Your task to perform on an android device: turn on the 12-hour format for clock Image 0: 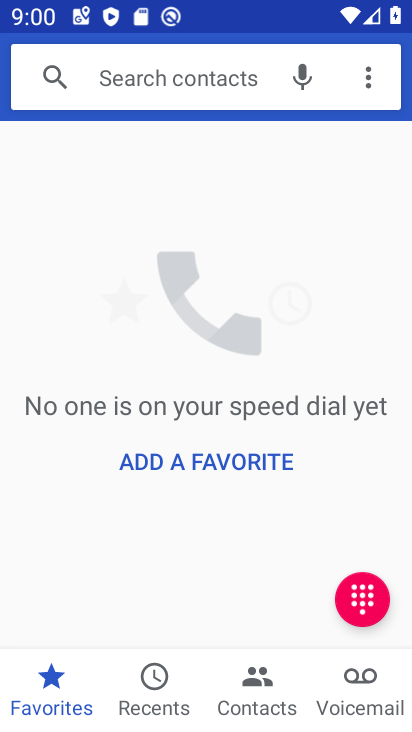
Step 0: press home button
Your task to perform on an android device: turn on the 12-hour format for clock Image 1: 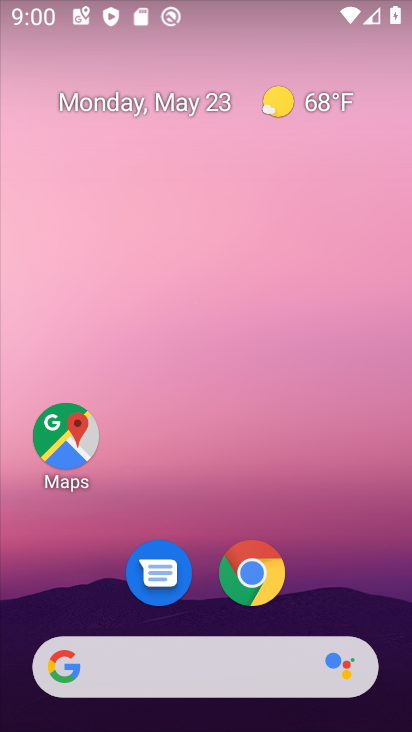
Step 1: drag from (306, 668) to (369, 152)
Your task to perform on an android device: turn on the 12-hour format for clock Image 2: 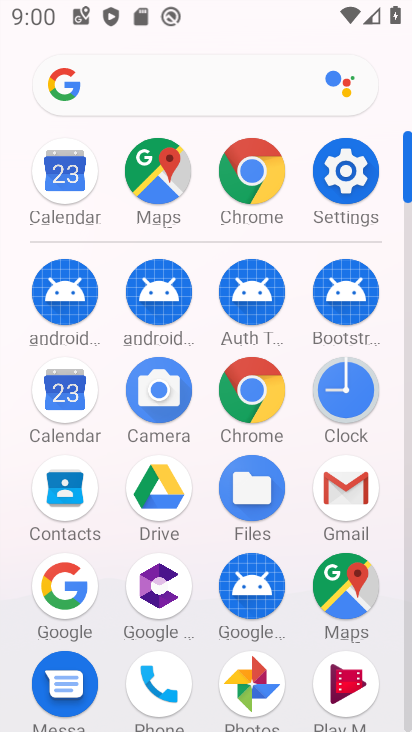
Step 2: click (346, 408)
Your task to perform on an android device: turn on the 12-hour format for clock Image 3: 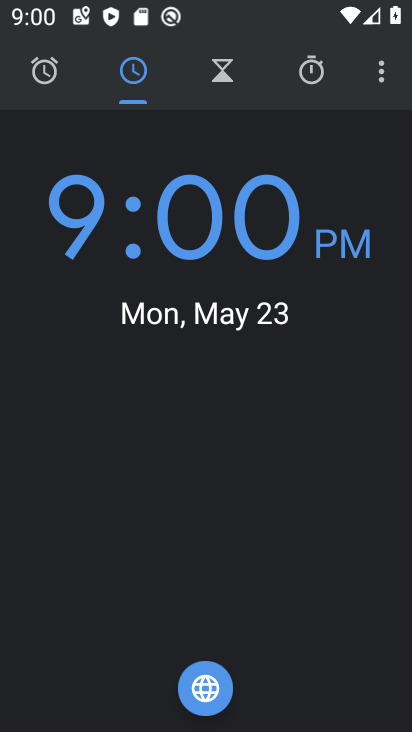
Step 3: click (386, 84)
Your task to perform on an android device: turn on the 12-hour format for clock Image 4: 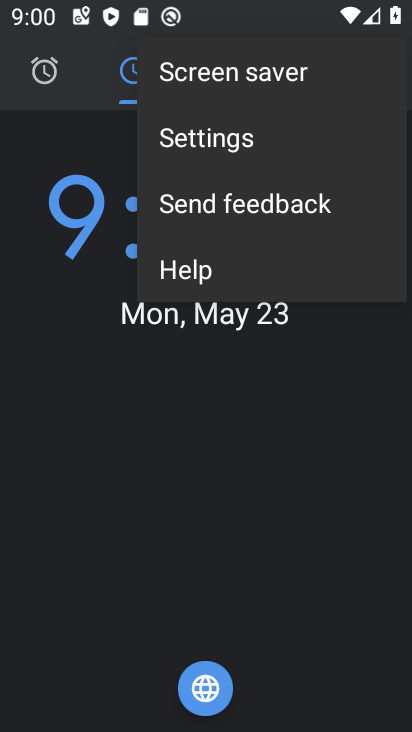
Step 4: click (239, 148)
Your task to perform on an android device: turn on the 12-hour format for clock Image 5: 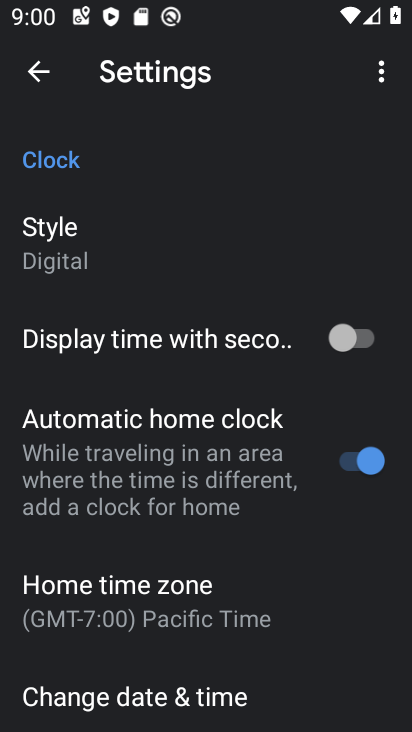
Step 5: drag from (245, 567) to (260, 346)
Your task to perform on an android device: turn on the 12-hour format for clock Image 6: 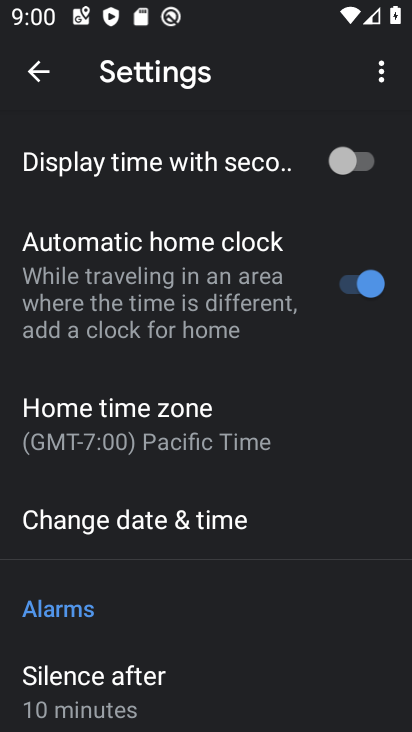
Step 6: click (202, 529)
Your task to perform on an android device: turn on the 12-hour format for clock Image 7: 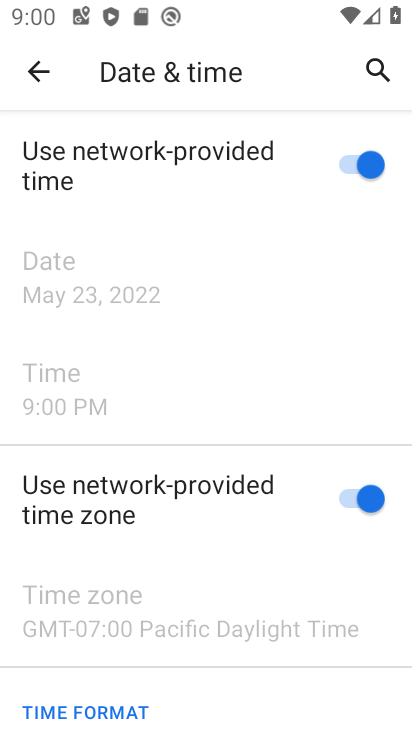
Step 7: task complete